Your task to perform on an android device: turn on bluetooth scan Image 0: 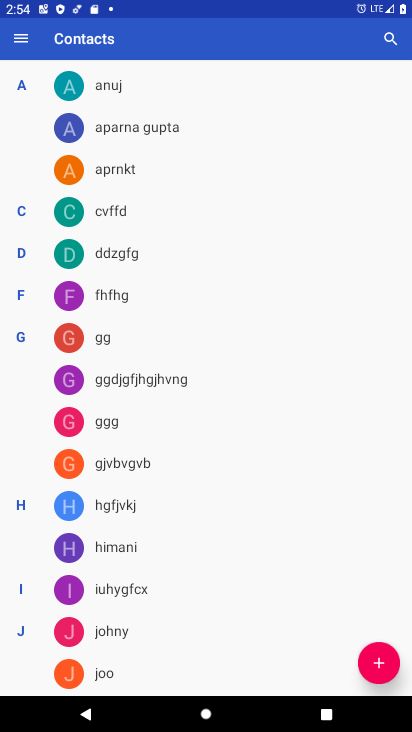
Step 0: press home button
Your task to perform on an android device: turn on bluetooth scan Image 1: 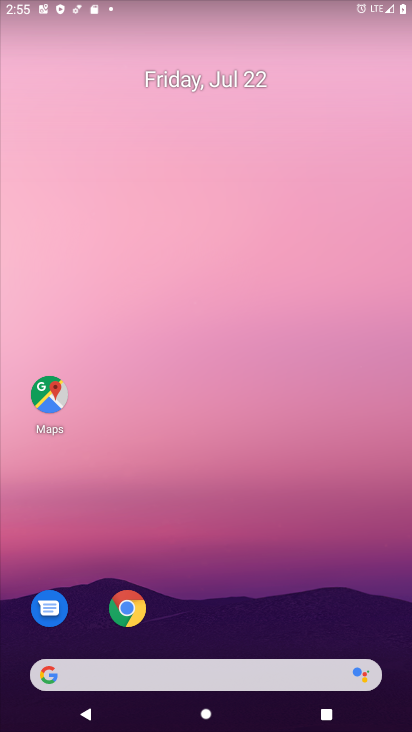
Step 1: drag from (216, 619) to (338, 65)
Your task to perform on an android device: turn on bluetooth scan Image 2: 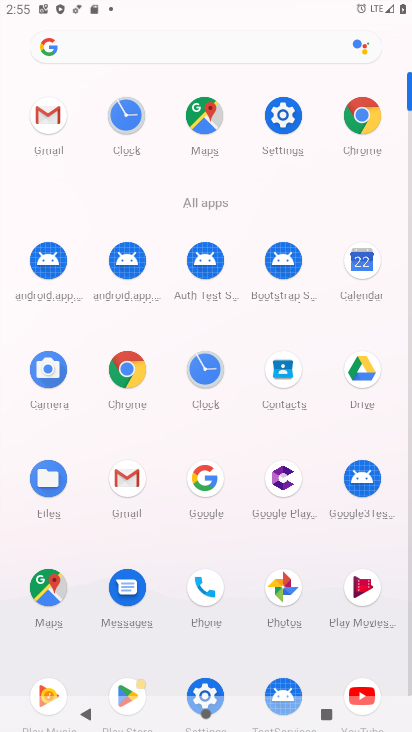
Step 2: click (211, 686)
Your task to perform on an android device: turn on bluetooth scan Image 3: 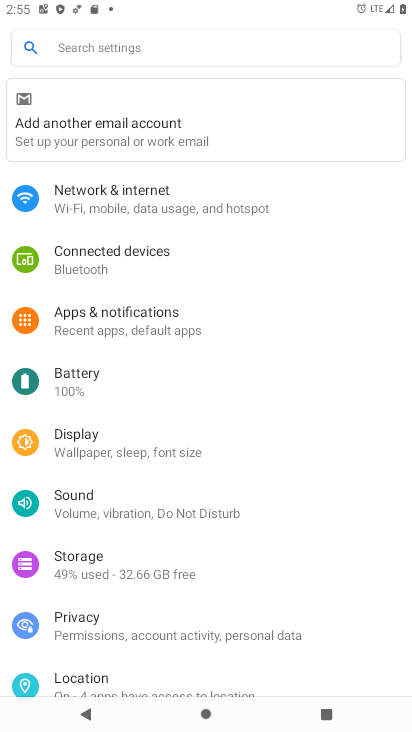
Step 3: click (132, 677)
Your task to perform on an android device: turn on bluetooth scan Image 4: 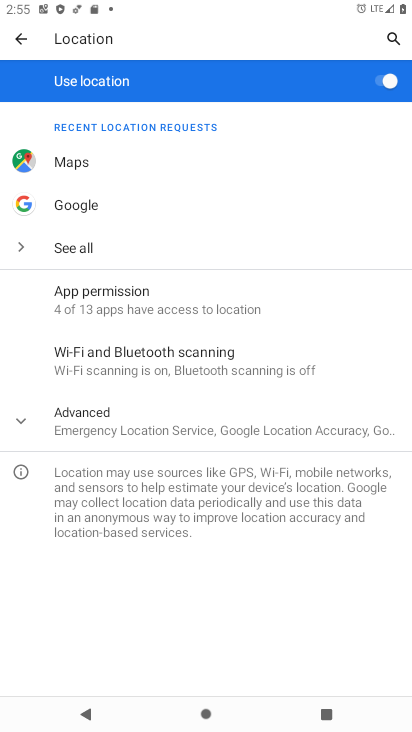
Step 4: click (142, 410)
Your task to perform on an android device: turn on bluetooth scan Image 5: 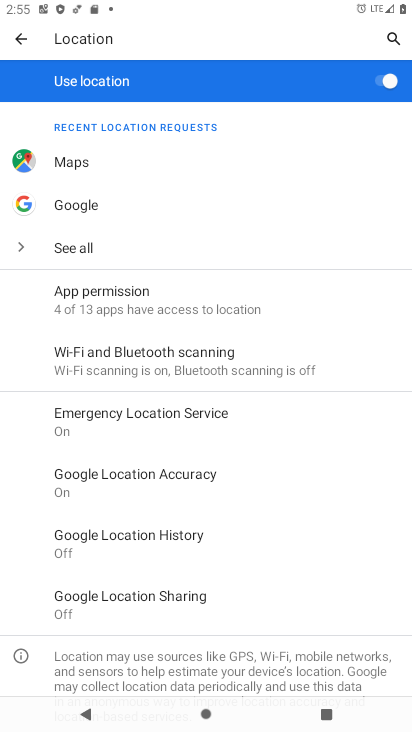
Step 5: click (138, 368)
Your task to perform on an android device: turn on bluetooth scan Image 6: 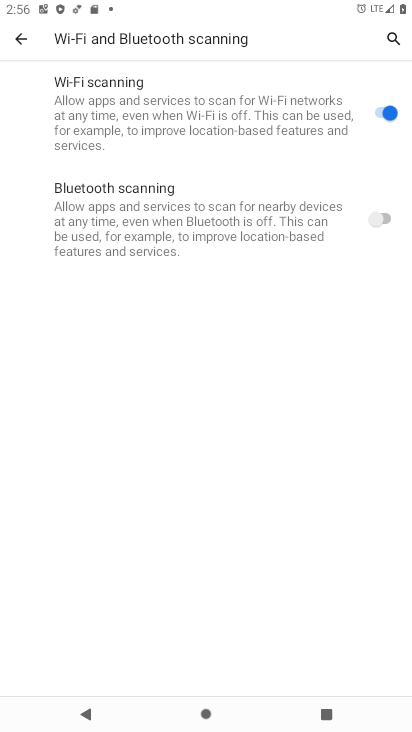
Step 6: click (382, 217)
Your task to perform on an android device: turn on bluetooth scan Image 7: 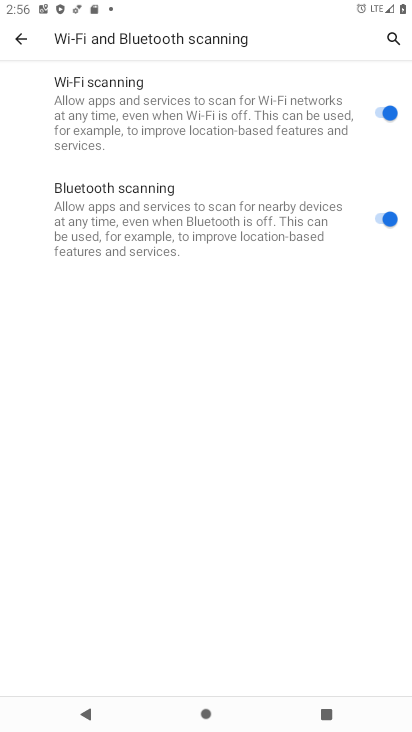
Step 7: task complete